Your task to perform on an android device: turn off data saver in the chrome app Image 0: 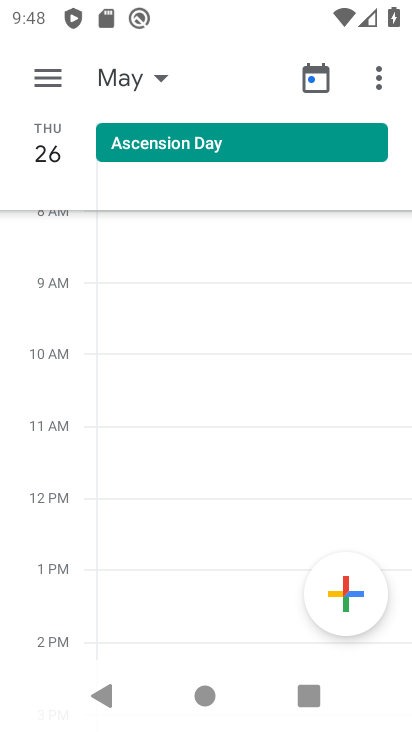
Step 0: press home button
Your task to perform on an android device: turn off data saver in the chrome app Image 1: 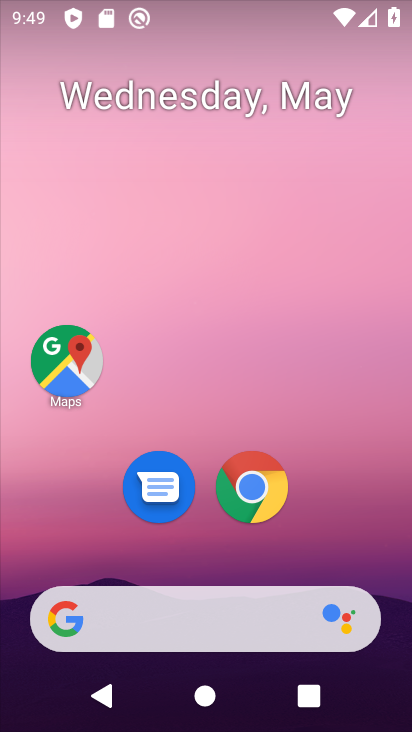
Step 1: drag from (291, 657) to (195, 64)
Your task to perform on an android device: turn off data saver in the chrome app Image 2: 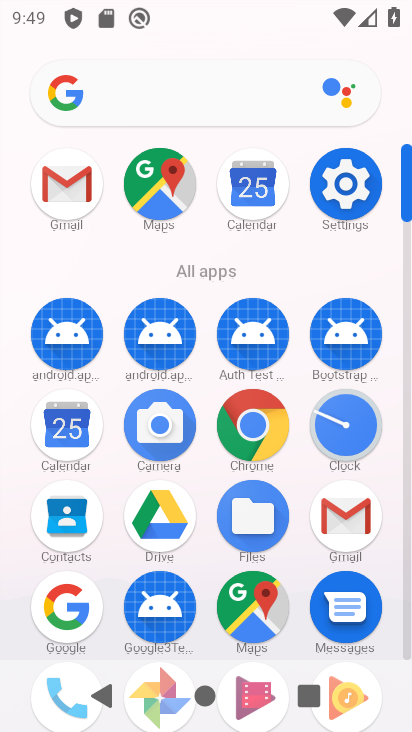
Step 2: click (259, 417)
Your task to perform on an android device: turn off data saver in the chrome app Image 3: 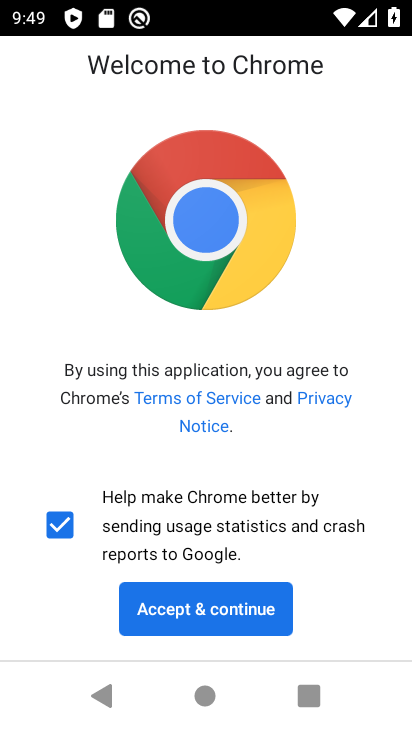
Step 3: click (276, 617)
Your task to perform on an android device: turn off data saver in the chrome app Image 4: 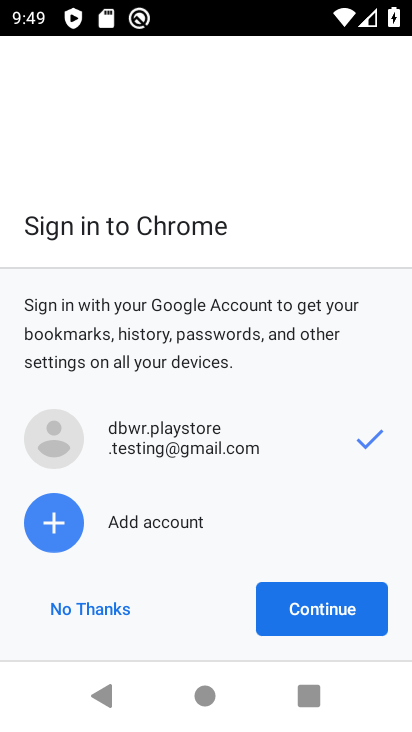
Step 4: click (316, 624)
Your task to perform on an android device: turn off data saver in the chrome app Image 5: 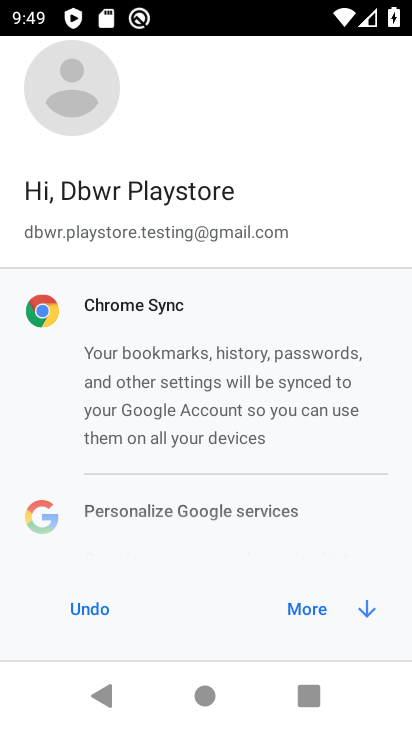
Step 5: click (372, 623)
Your task to perform on an android device: turn off data saver in the chrome app Image 6: 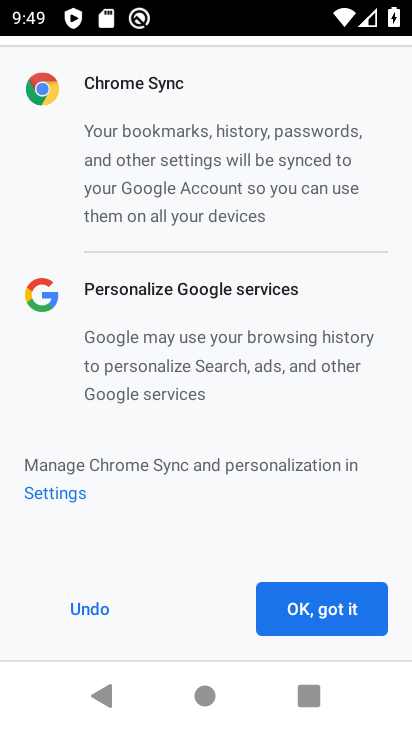
Step 6: click (363, 612)
Your task to perform on an android device: turn off data saver in the chrome app Image 7: 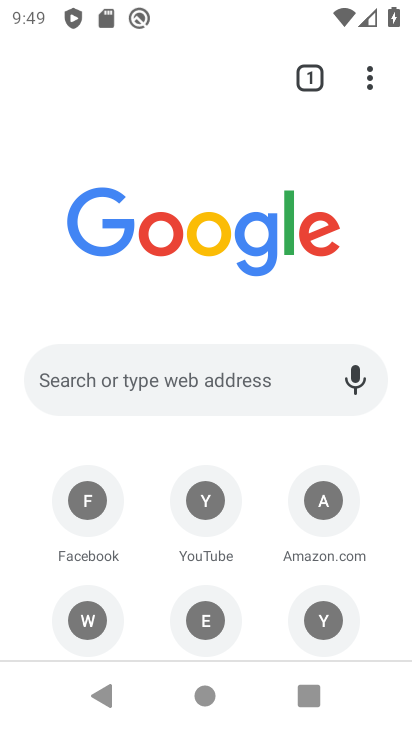
Step 7: click (373, 84)
Your task to perform on an android device: turn off data saver in the chrome app Image 8: 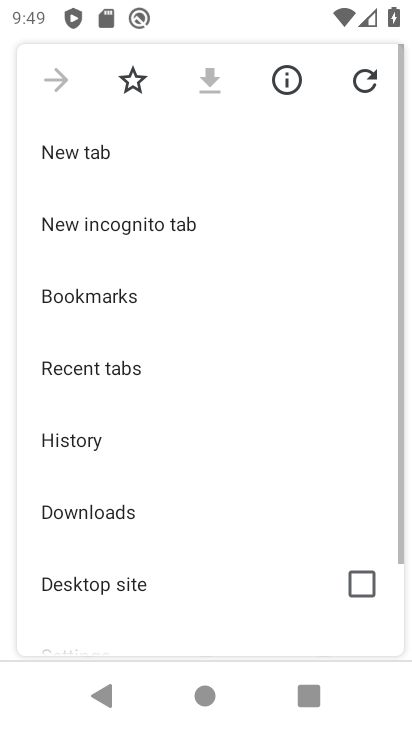
Step 8: drag from (88, 547) to (20, 346)
Your task to perform on an android device: turn off data saver in the chrome app Image 9: 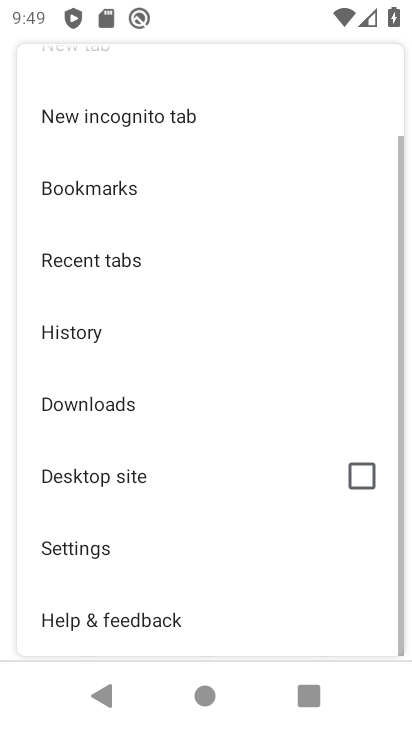
Step 9: click (101, 547)
Your task to perform on an android device: turn off data saver in the chrome app Image 10: 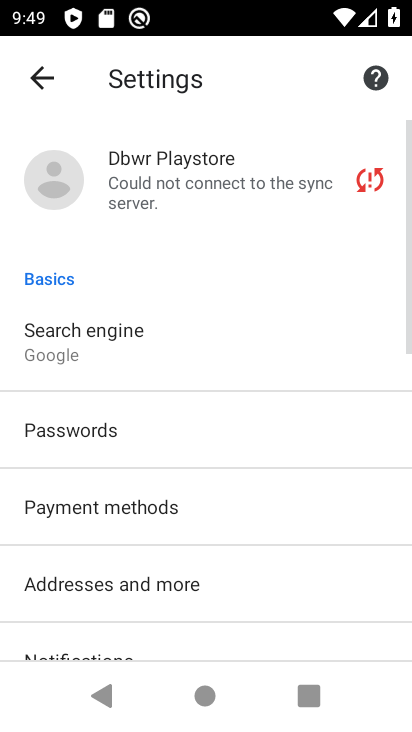
Step 10: drag from (94, 484) to (47, 155)
Your task to perform on an android device: turn off data saver in the chrome app Image 11: 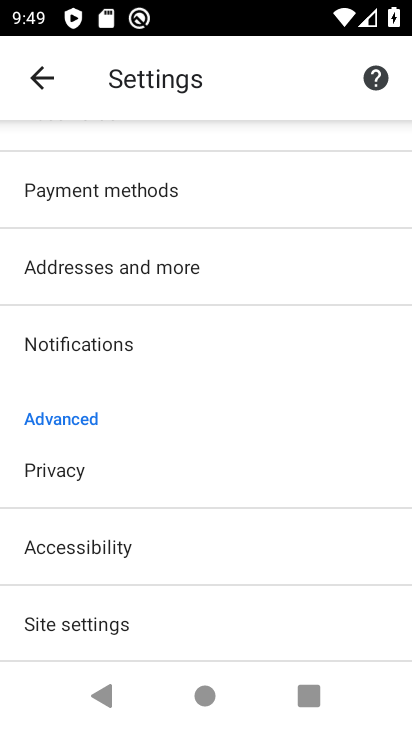
Step 11: drag from (156, 525) to (87, 260)
Your task to perform on an android device: turn off data saver in the chrome app Image 12: 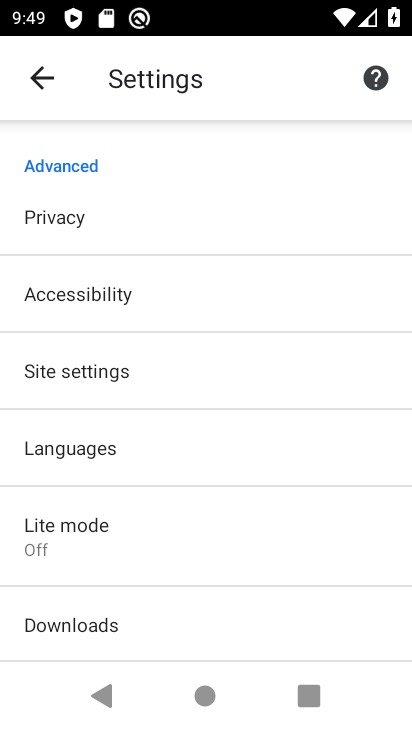
Step 12: click (122, 554)
Your task to perform on an android device: turn off data saver in the chrome app Image 13: 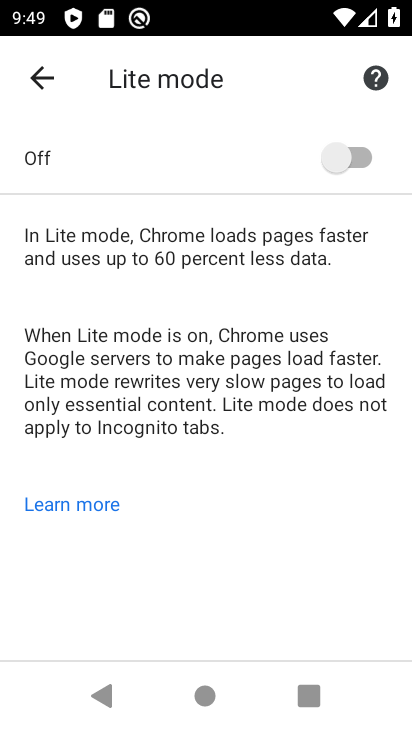
Step 13: click (345, 144)
Your task to perform on an android device: turn off data saver in the chrome app Image 14: 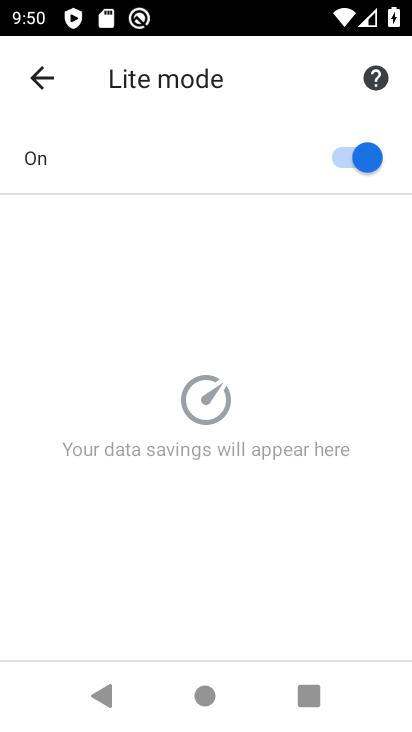
Step 14: click (347, 148)
Your task to perform on an android device: turn off data saver in the chrome app Image 15: 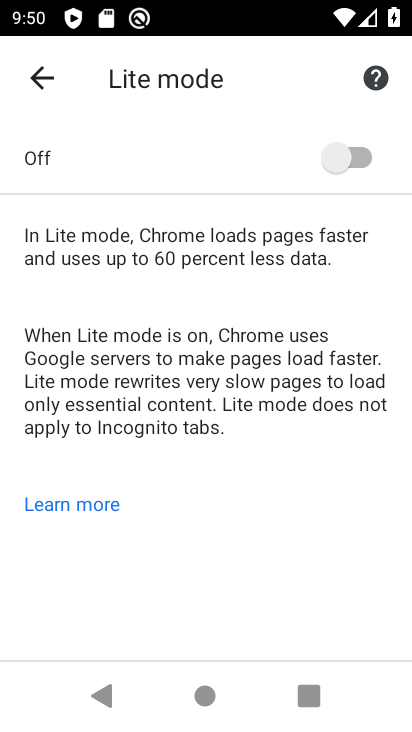
Step 15: task complete